Your task to perform on an android device: delete location history Image 0: 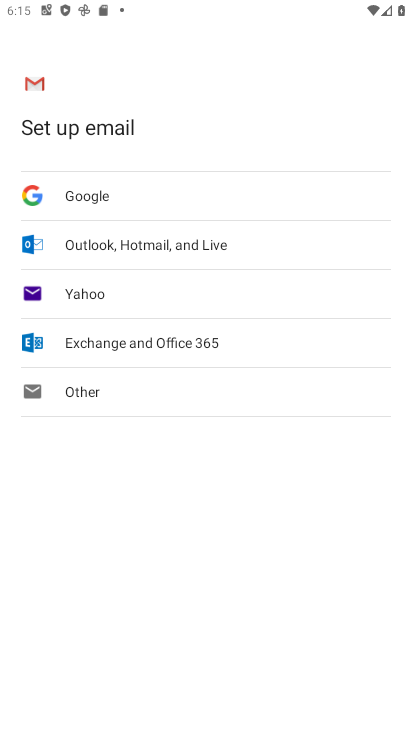
Step 0: press home button
Your task to perform on an android device: delete location history Image 1: 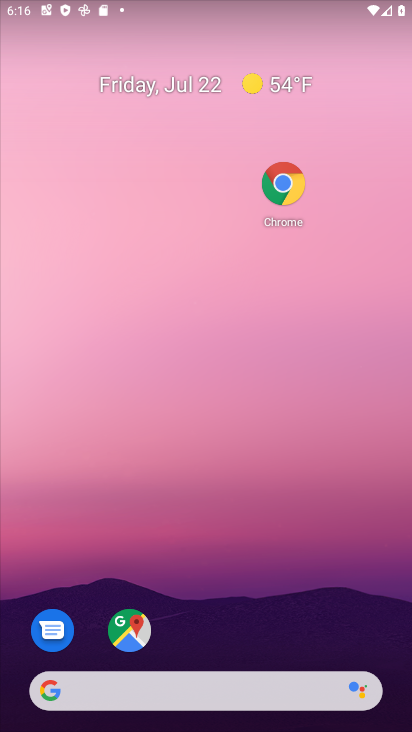
Step 1: drag from (227, 549) to (195, 162)
Your task to perform on an android device: delete location history Image 2: 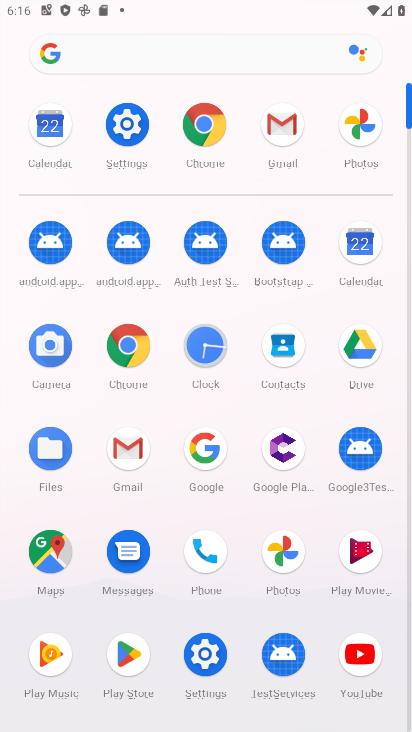
Step 2: click (48, 560)
Your task to perform on an android device: delete location history Image 3: 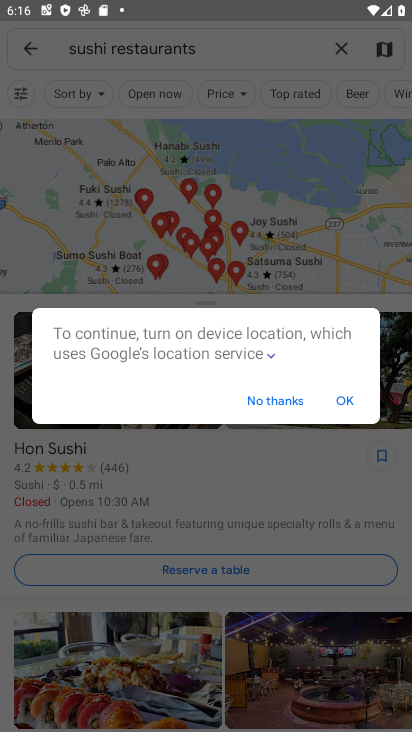
Step 3: click (280, 400)
Your task to perform on an android device: delete location history Image 4: 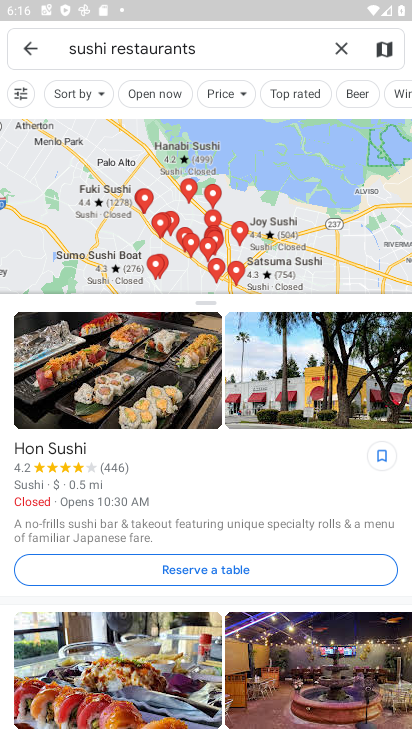
Step 4: click (25, 51)
Your task to perform on an android device: delete location history Image 5: 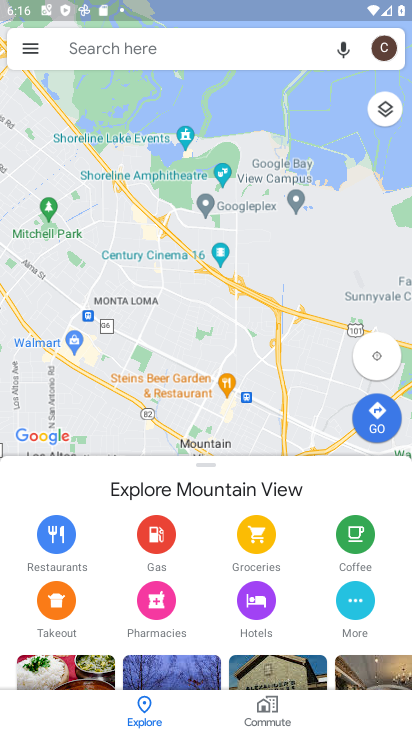
Step 5: click (25, 51)
Your task to perform on an android device: delete location history Image 6: 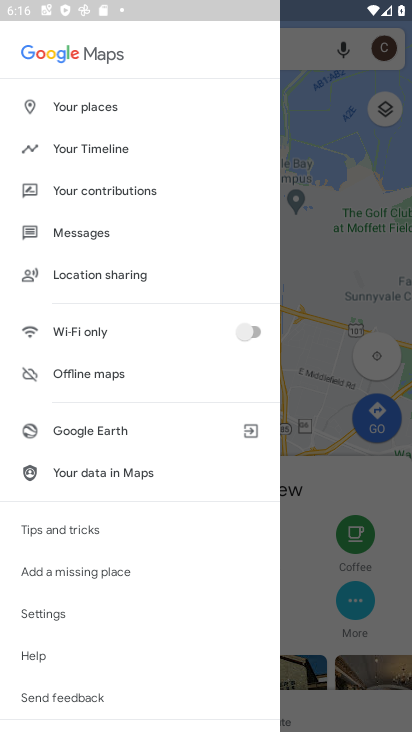
Step 6: click (106, 150)
Your task to perform on an android device: delete location history Image 7: 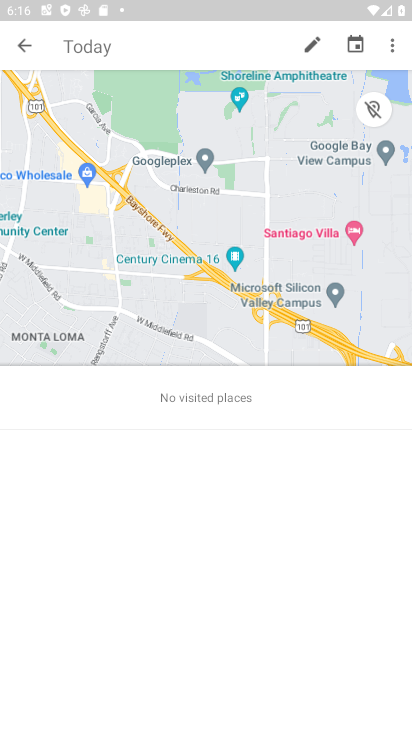
Step 7: click (391, 49)
Your task to perform on an android device: delete location history Image 8: 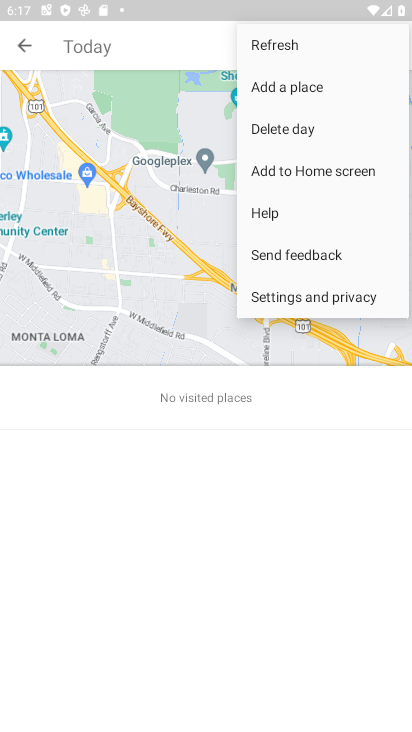
Step 8: click (322, 293)
Your task to perform on an android device: delete location history Image 9: 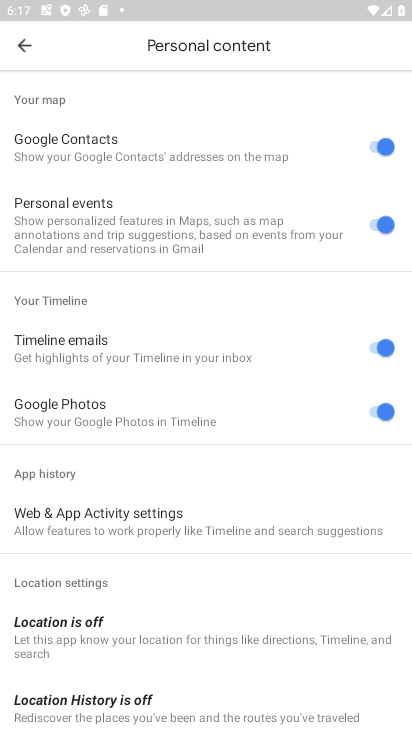
Step 9: drag from (245, 661) to (235, 224)
Your task to perform on an android device: delete location history Image 10: 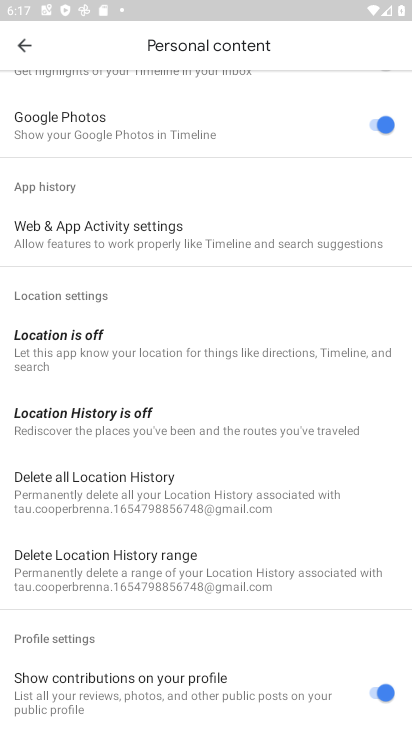
Step 10: click (151, 480)
Your task to perform on an android device: delete location history Image 11: 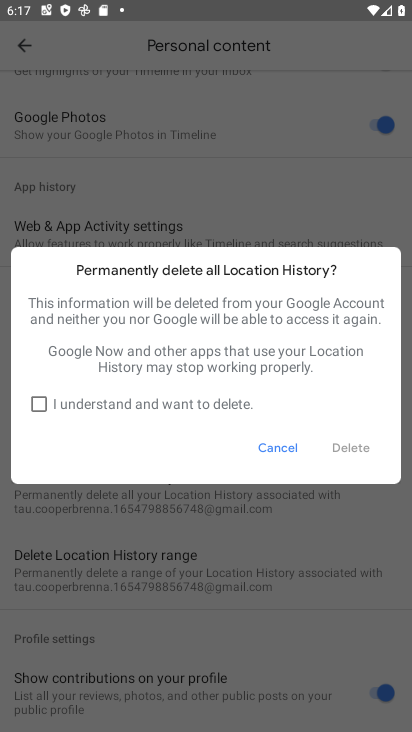
Step 11: click (36, 406)
Your task to perform on an android device: delete location history Image 12: 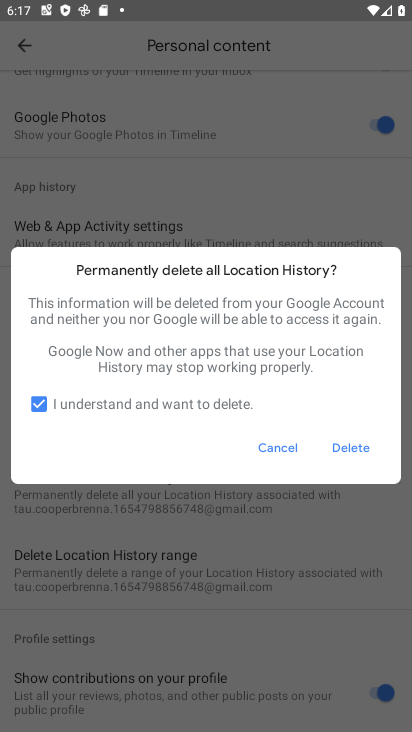
Step 12: click (365, 441)
Your task to perform on an android device: delete location history Image 13: 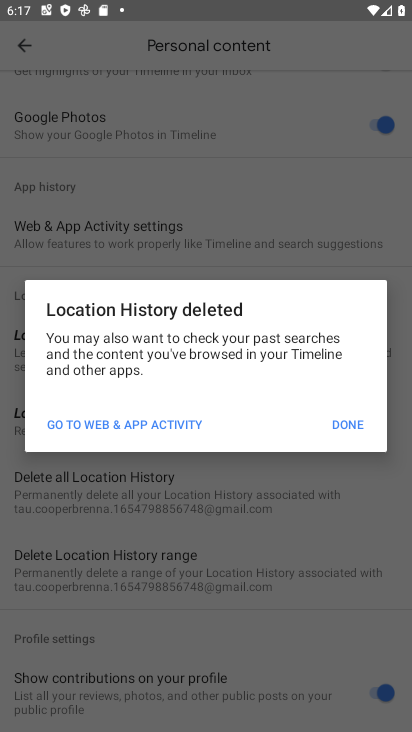
Step 13: click (346, 423)
Your task to perform on an android device: delete location history Image 14: 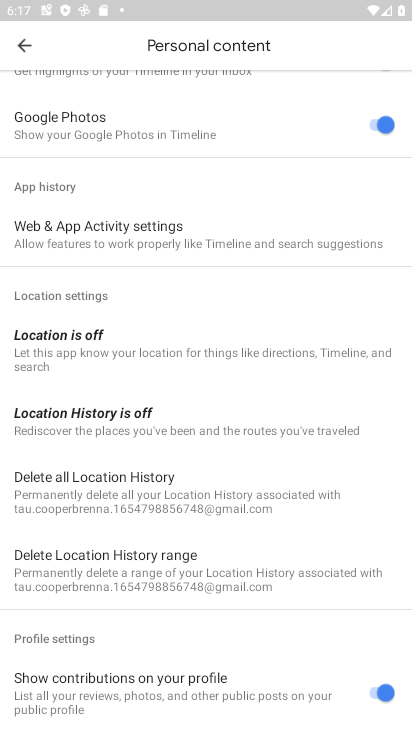
Step 14: task complete